Your task to perform on an android device: Go to location settings Image 0: 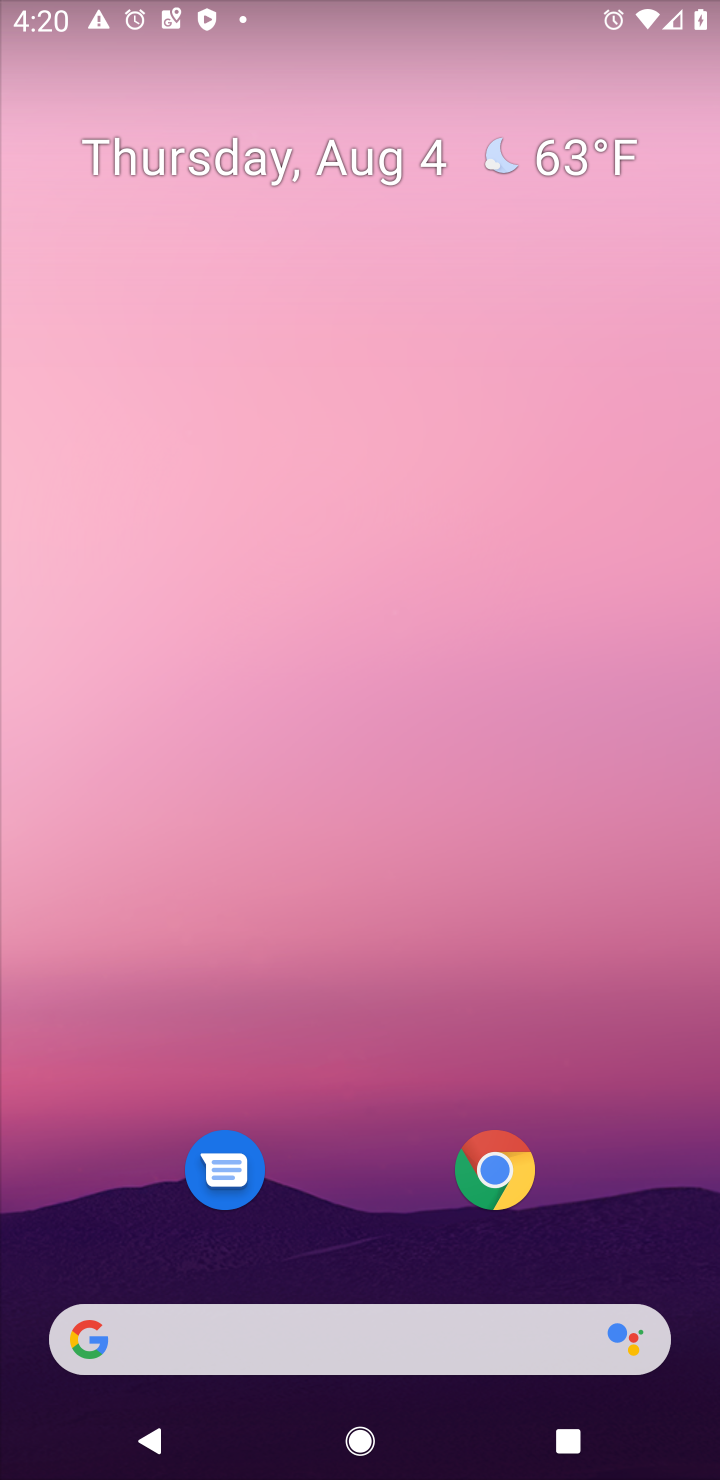
Step 0: drag from (626, 1210) to (615, 331)
Your task to perform on an android device: Go to location settings Image 1: 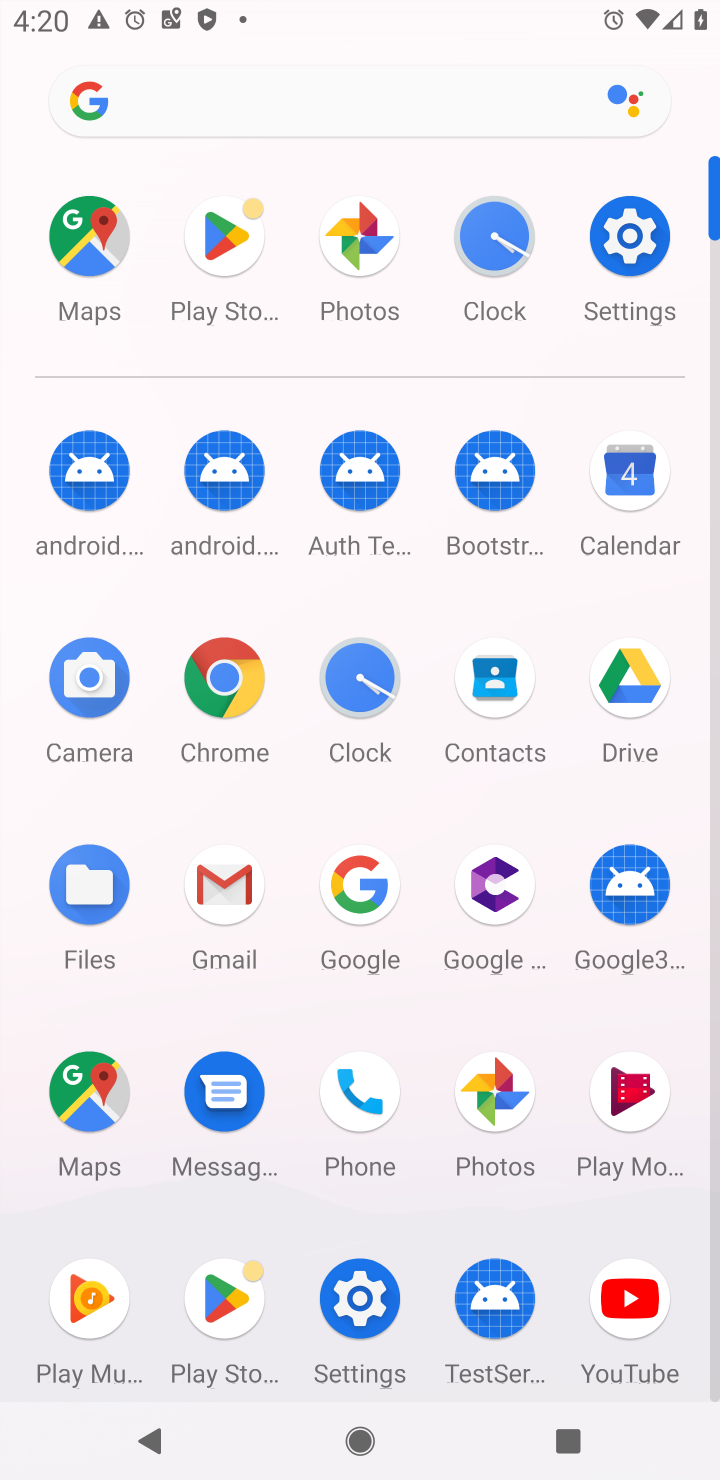
Step 1: click (363, 1301)
Your task to perform on an android device: Go to location settings Image 2: 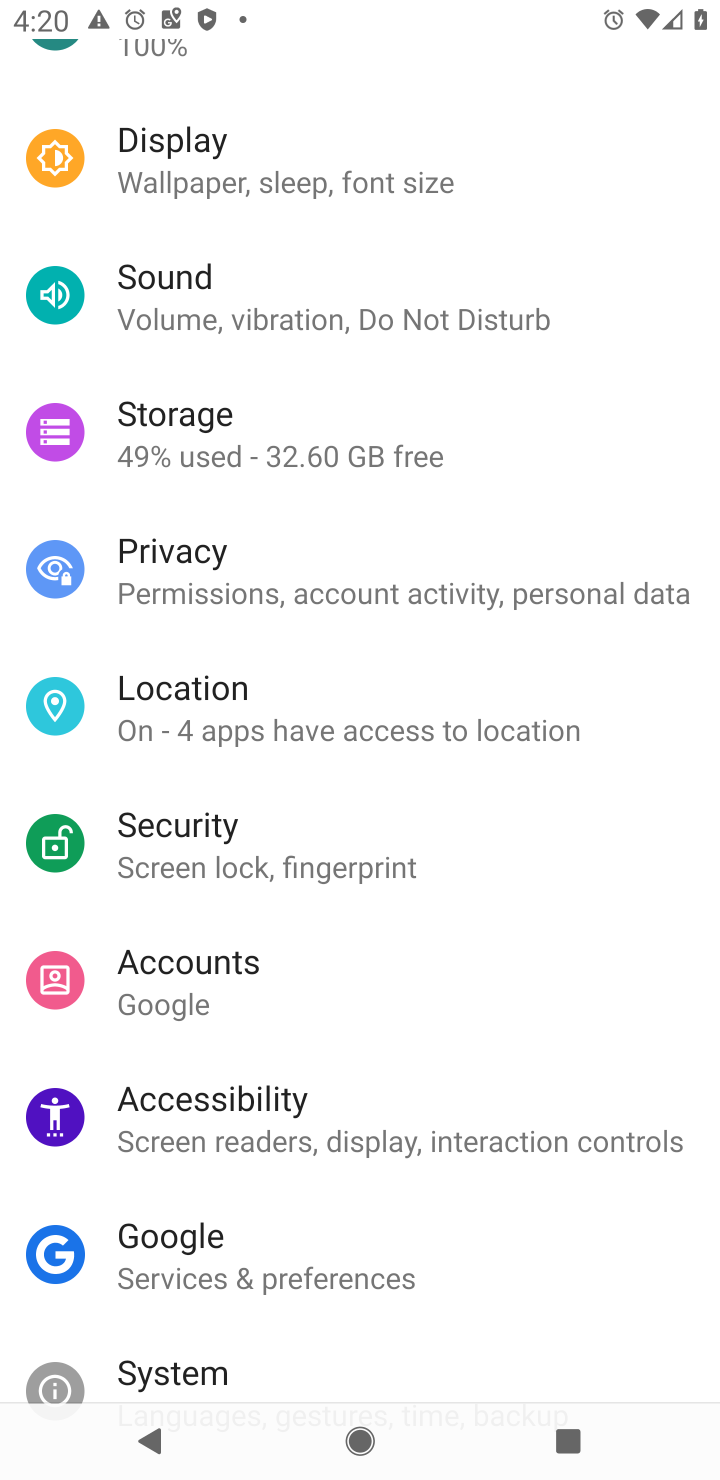
Step 2: click (208, 703)
Your task to perform on an android device: Go to location settings Image 3: 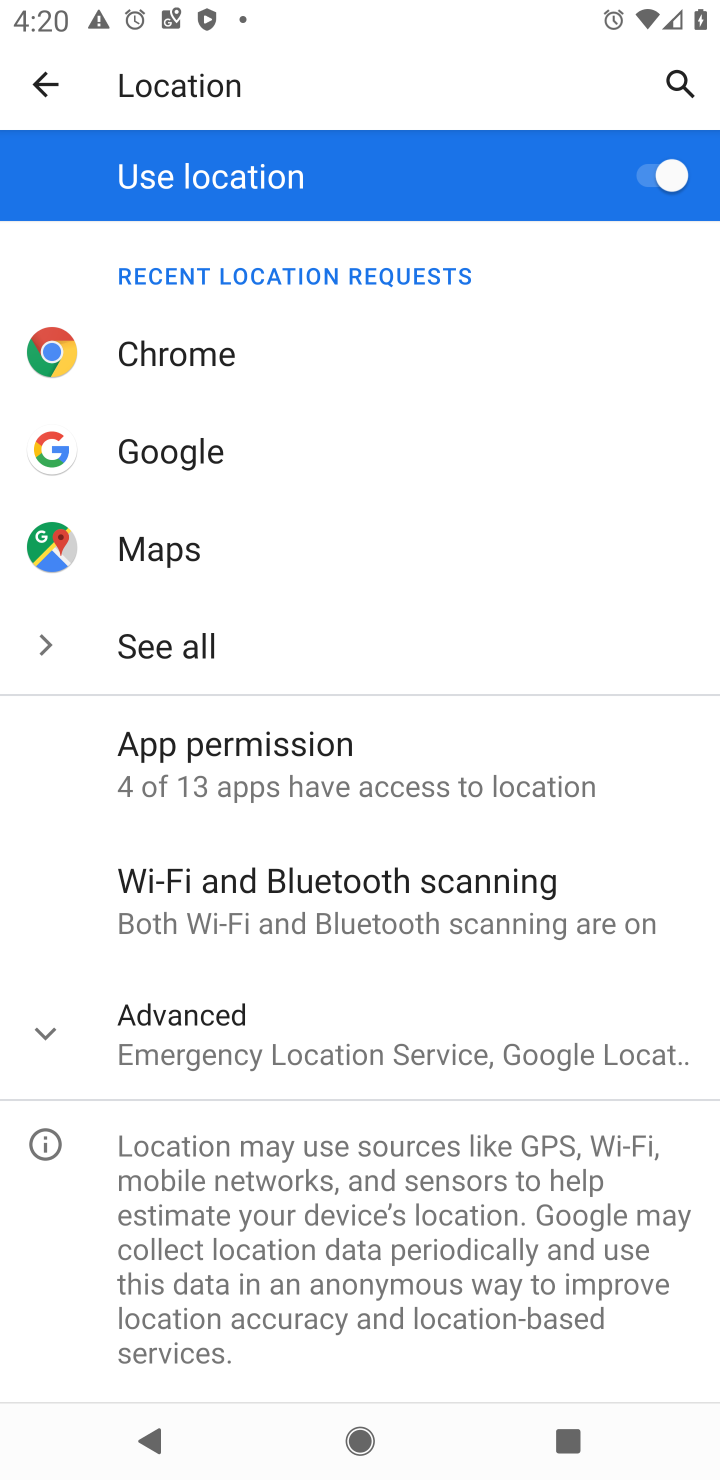
Step 3: click (32, 1032)
Your task to perform on an android device: Go to location settings Image 4: 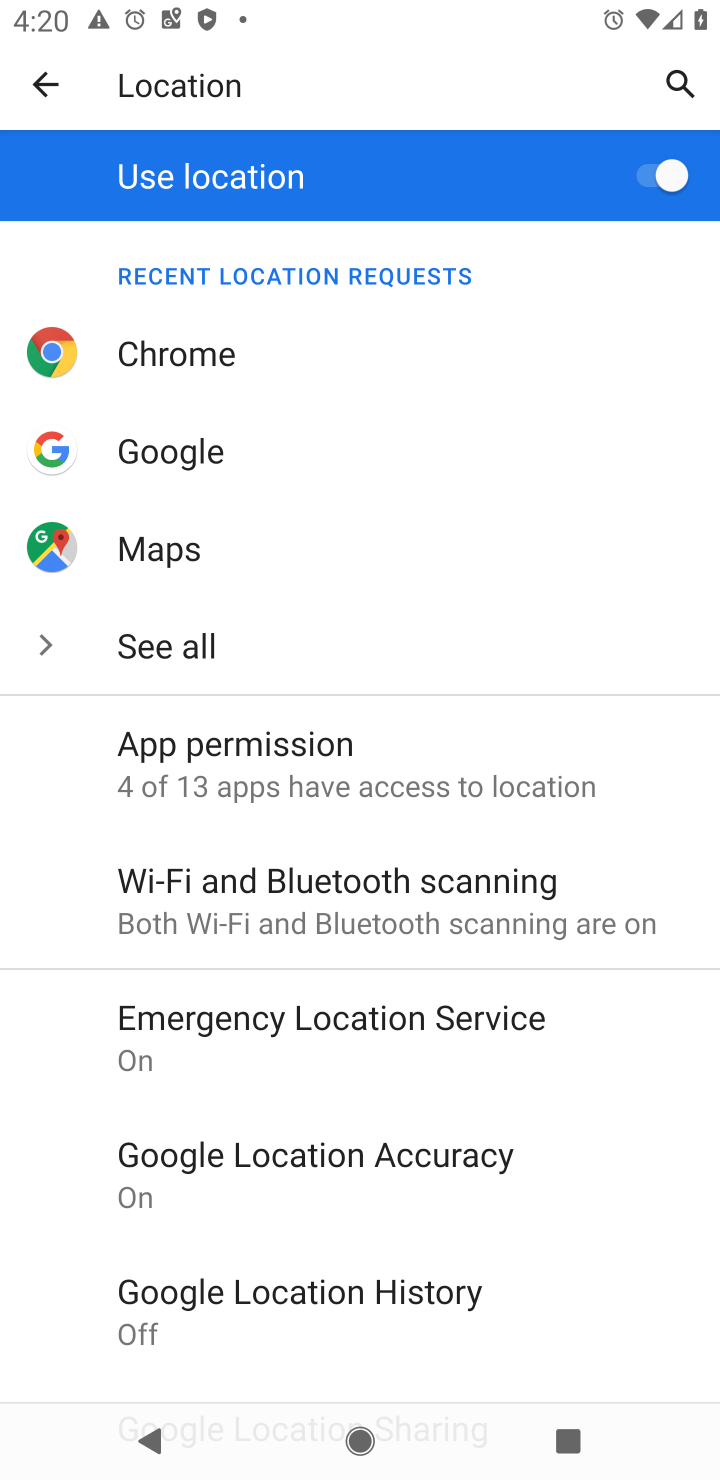
Step 4: task complete